Your task to perform on an android device: clear all cookies in the chrome app Image 0: 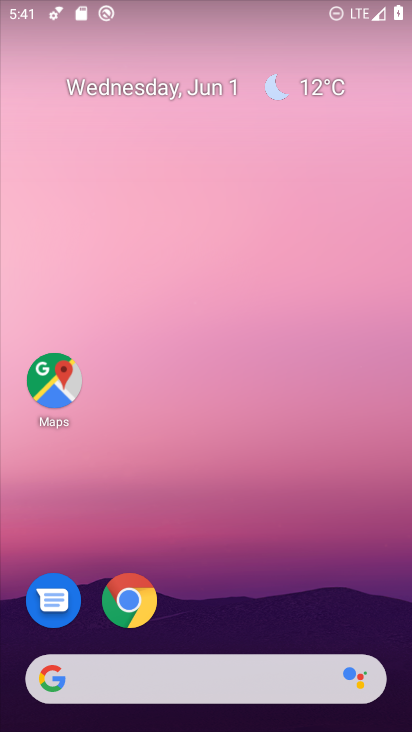
Step 0: click (128, 605)
Your task to perform on an android device: clear all cookies in the chrome app Image 1: 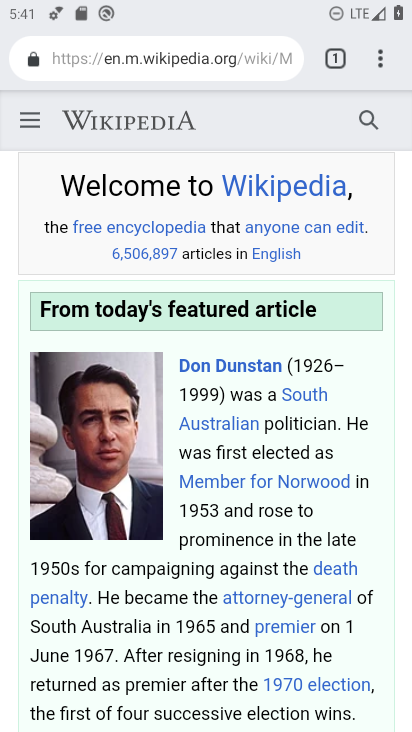
Step 1: click (380, 66)
Your task to perform on an android device: clear all cookies in the chrome app Image 2: 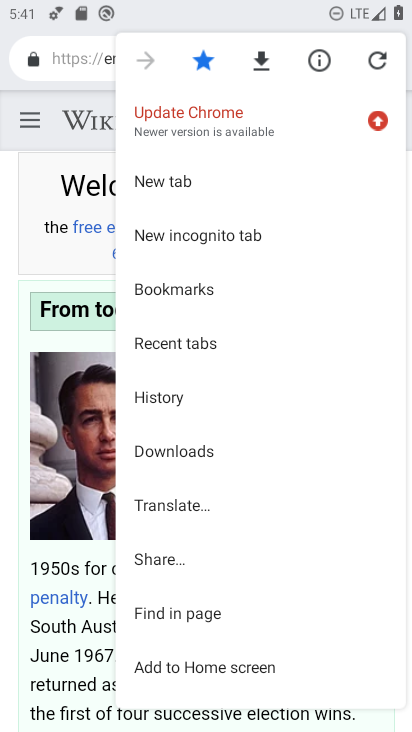
Step 2: click (179, 395)
Your task to perform on an android device: clear all cookies in the chrome app Image 3: 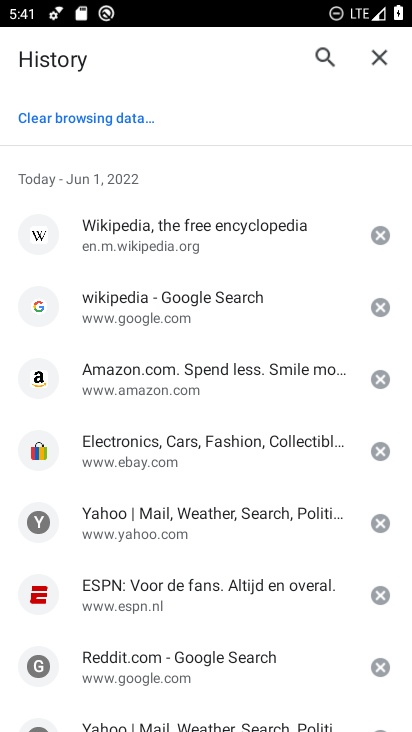
Step 3: click (71, 126)
Your task to perform on an android device: clear all cookies in the chrome app Image 4: 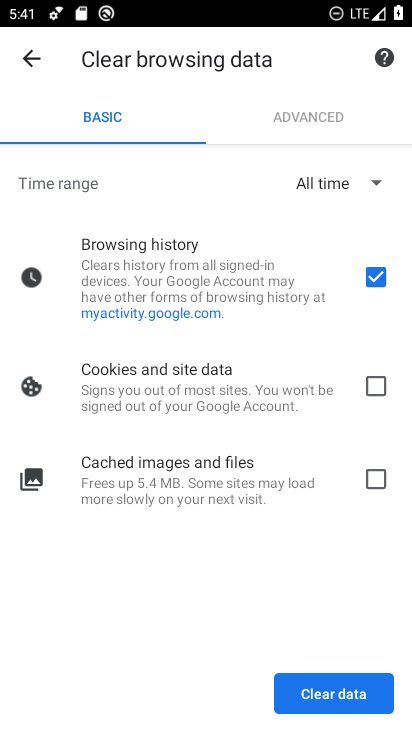
Step 4: click (367, 384)
Your task to perform on an android device: clear all cookies in the chrome app Image 5: 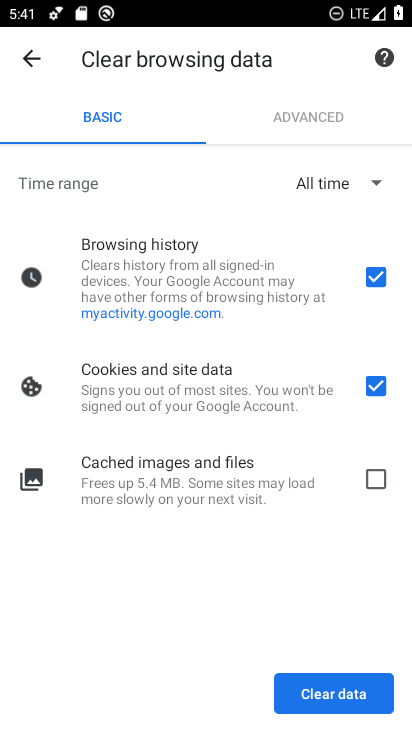
Step 5: click (378, 268)
Your task to perform on an android device: clear all cookies in the chrome app Image 6: 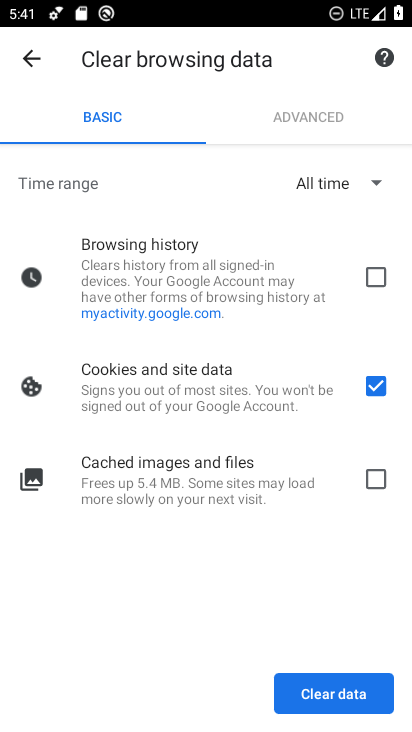
Step 6: click (339, 704)
Your task to perform on an android device: clear all cookies in the chrome app Image 7: 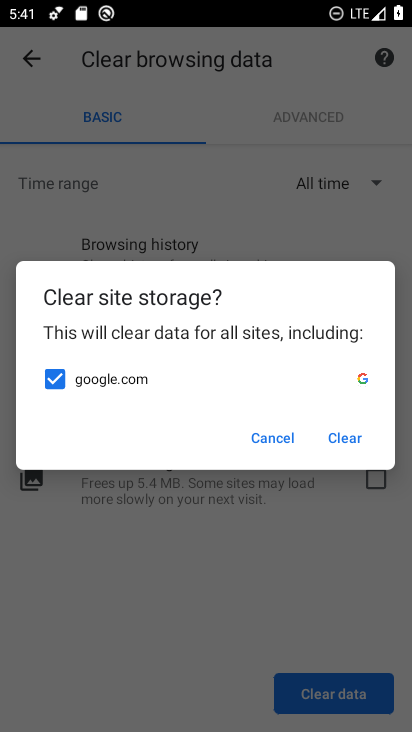
Step 7: click (341, 437)
Your task to perform on an android device: clear all cookies in the chrome app Image 8: 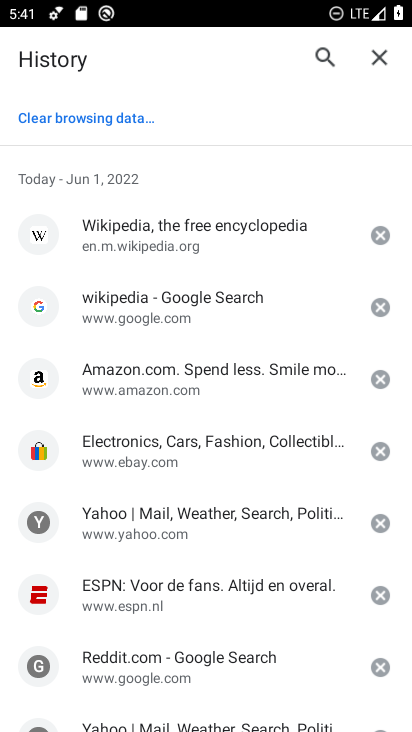
Step 8: task complete